Your task to perform on an android device: open app "Reddit" (install if not already installed) Image 0: 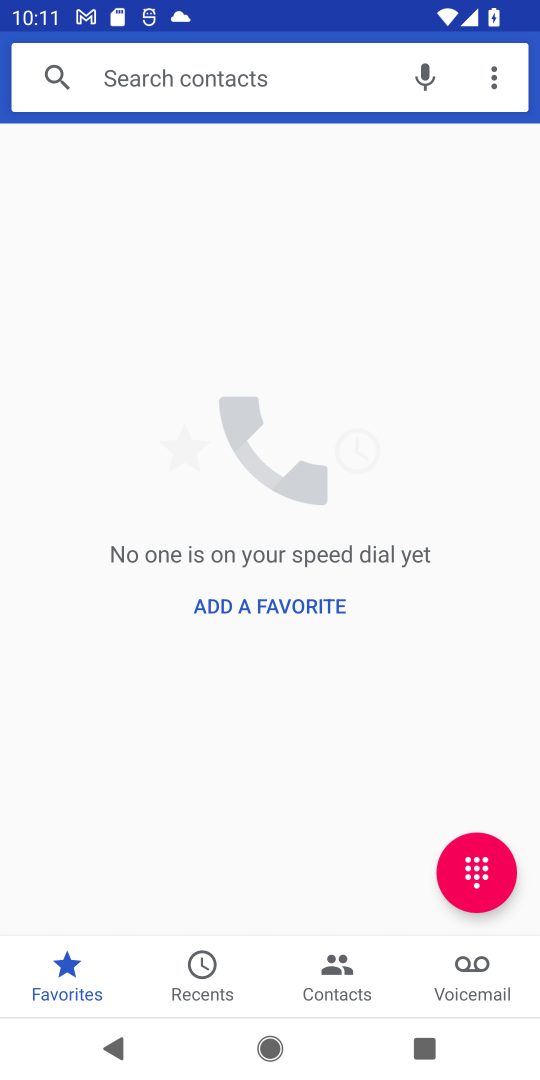
Step 0: press back button
Your task to perform on an android device: open app "Reddit" (install if not already installed) Image 1: 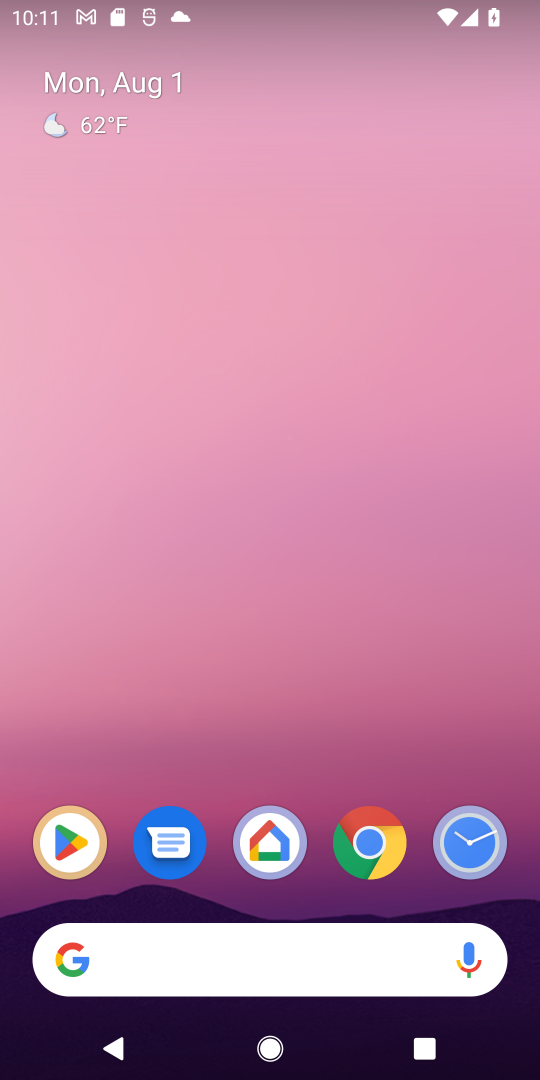
Step 1: click (55, 816)
Your task to perform on an android device: open app "Reddit" (install if not already installed) Image 2: 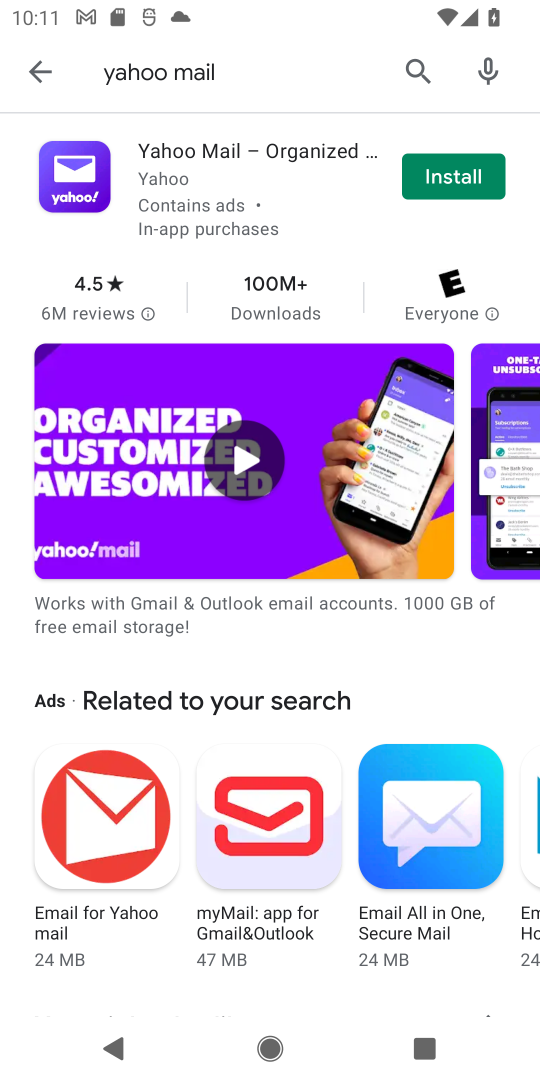
Step 2: click (409, 74)
Your task to perform on an android device: open app "Reddit" (install if not already installed) Image 3: 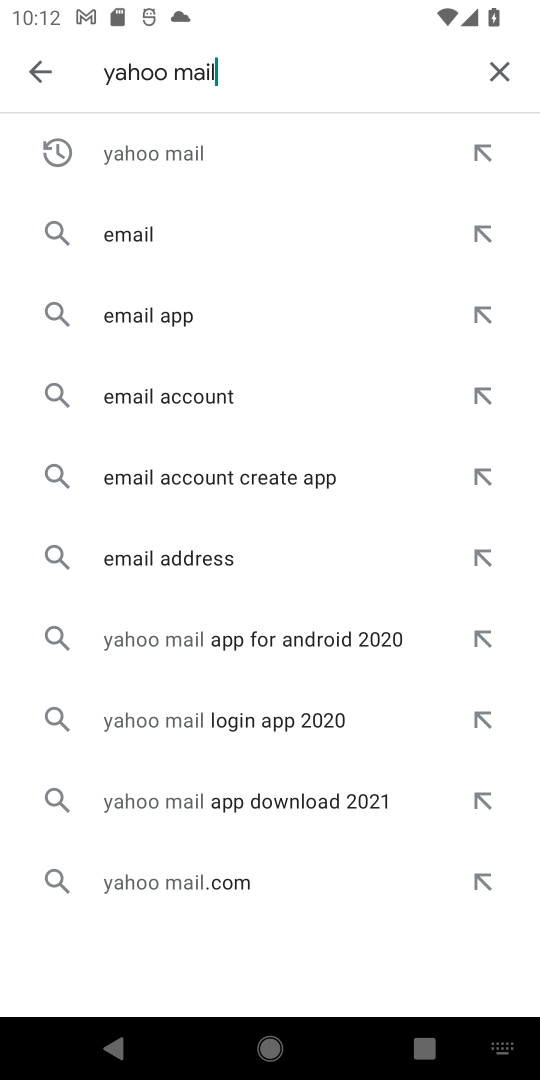
Step 3: click (500, 72)
Your task to perform on an android device: open app "Reddit" (install if not already installed) Image 4: 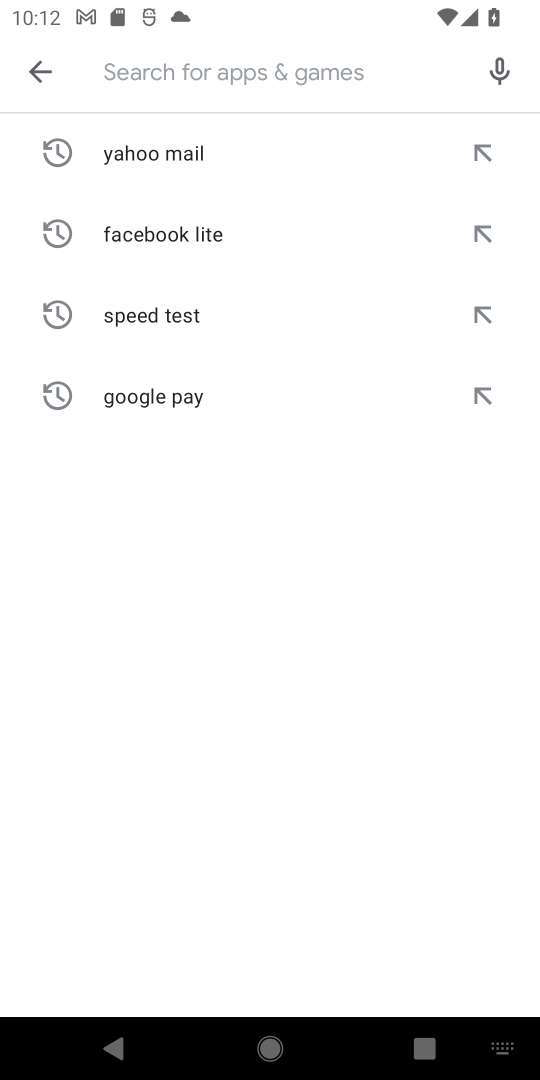
Step 4: click (236, 72)
Your task to perform on an android device: open app "Reddit" (install if not already installed) Image 5: 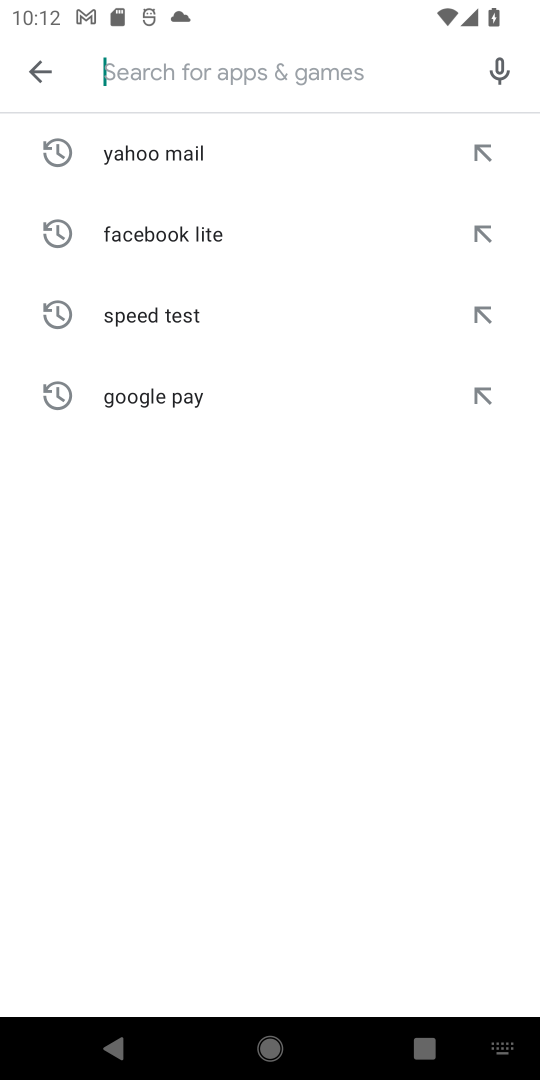
Step 5: type "reddit"
Your task to perform on an android device: open app "Reddit" (install if not already installed) Image 6: 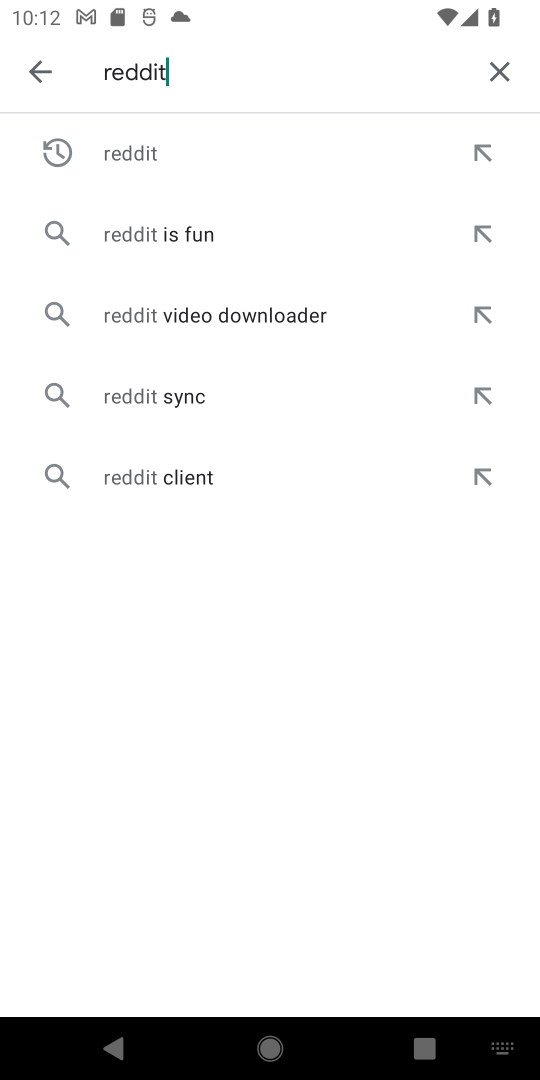
Step 6: click (157, 146)
Your task to perform on an android device: open app "Reddit" (install if not already installed) Image 7: 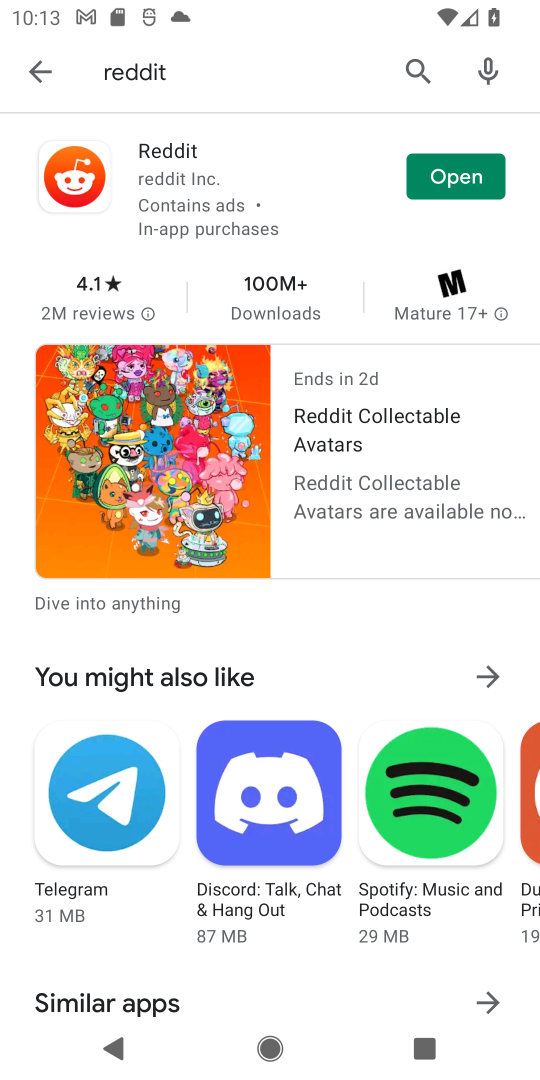
Step 7: click (422, 176)
Your task to perform on an android device: open app "Reddit" (install if not already installed) Image 8: 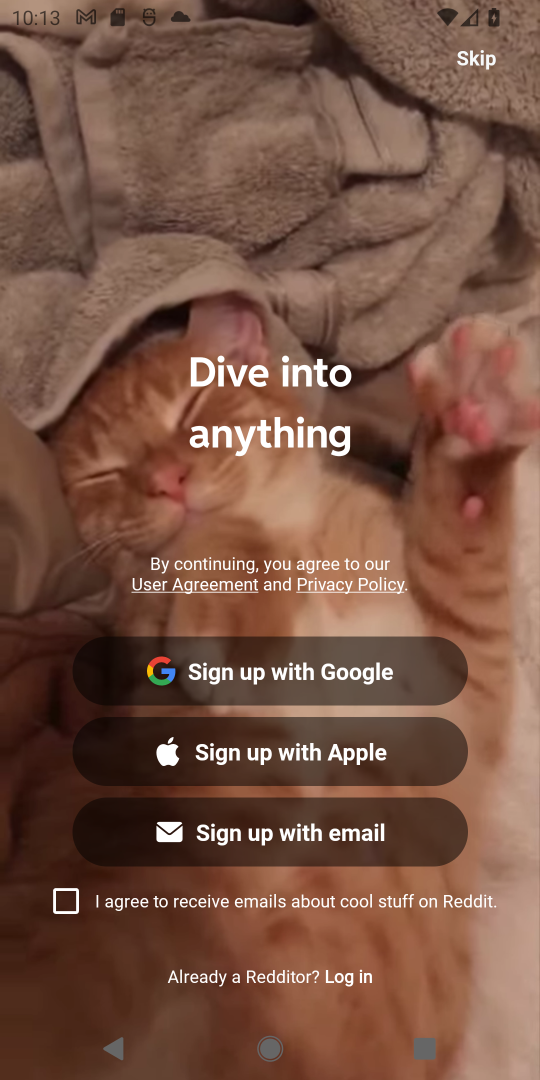
Step 8: task complete